Your task to perform on an android device: toggle pop-ups in chrome Image 0: 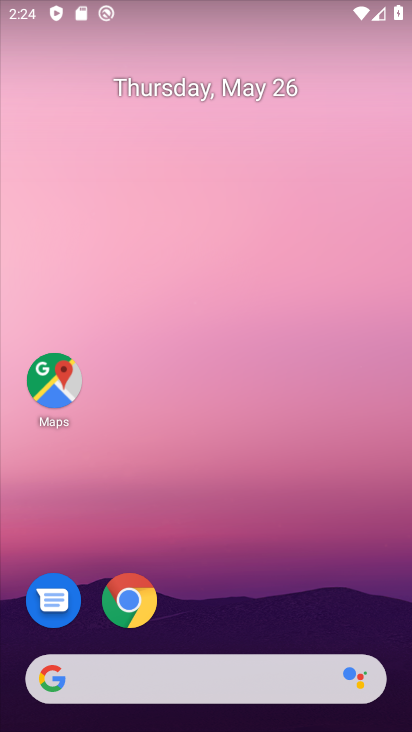
Step 0: click (124, 614)
Your task to perform on an android device: toggle pop-ups in chrome Image 1: 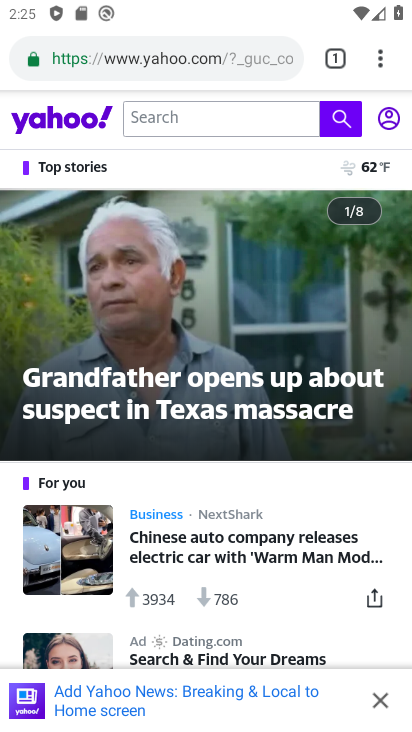
Step 1: drag from (379, 50) to (271, 634)
Your task to perform on an android device: toggle pop-ups in chrome Image 2: 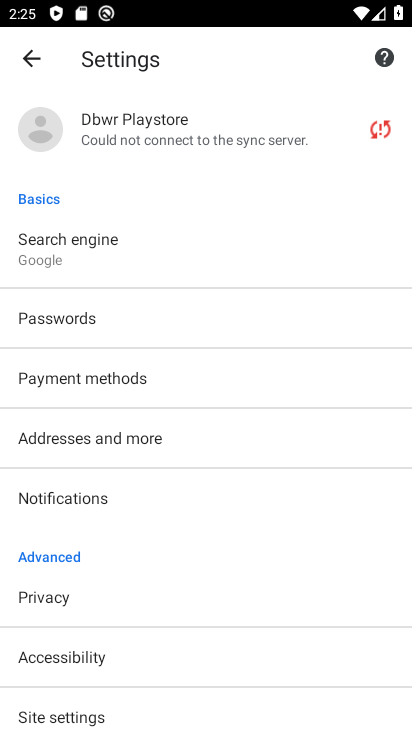
Step 2: drag from (179, 648) to (291, 357)
Your task to perform on an android device: toggle pop-ups in chrome Image 3: 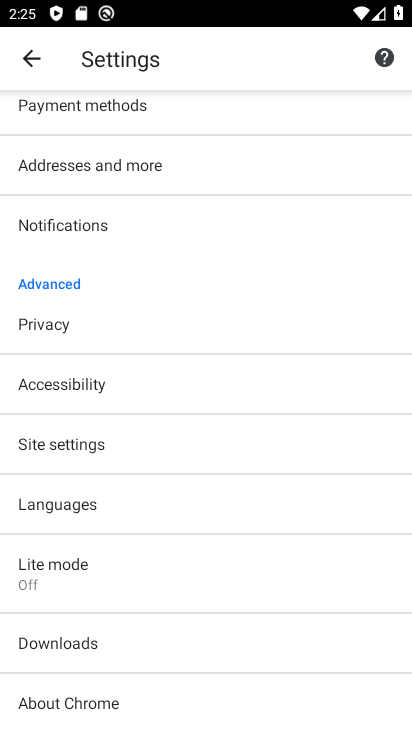
Step 3: click (109, 460)
Your task to perform on an android device: toggle pop-ups in chrome Image 4: 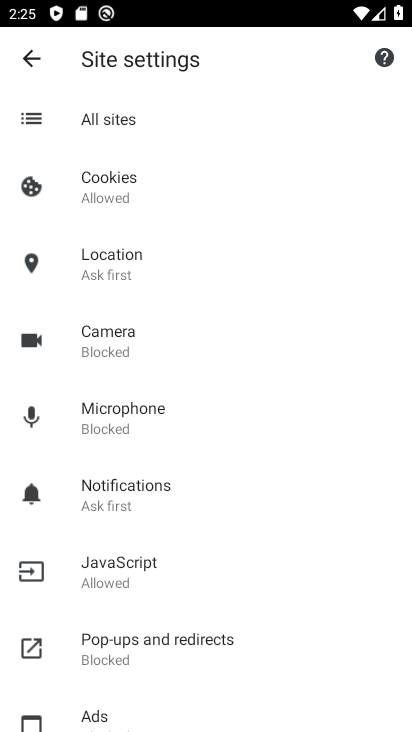
Step 4: click (173, 648)
Your task to perform on an android device: toggle pop-ups in chrome Image 5: 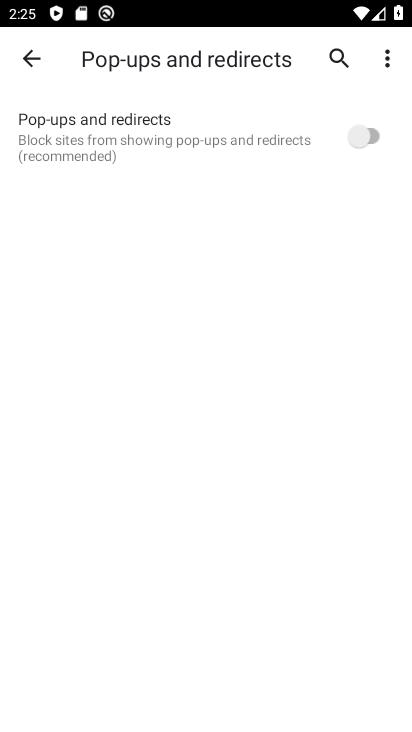
Step 5: click (379, 131)
Your task to perform on an android device: toggle pop-ups in chrome Image 6: 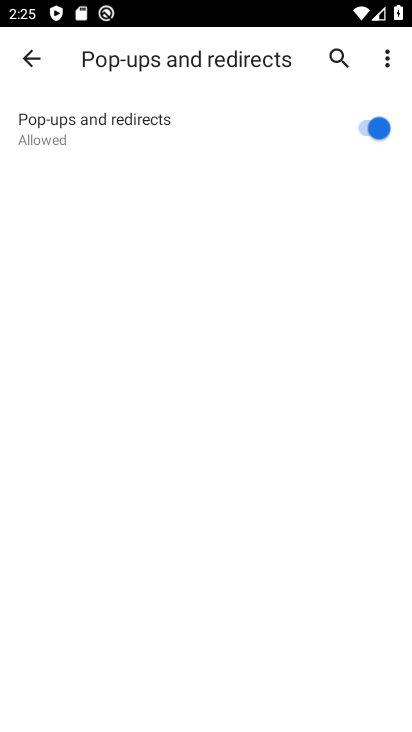
Step 6: task complete